Your task to perform on an android device: change the clock style Image 0: 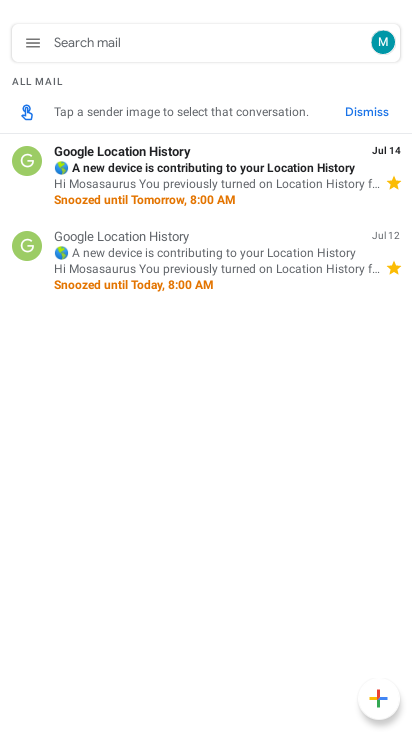
Step 0: press home button
Your task to perform on an android device: change the clock style Image 1: 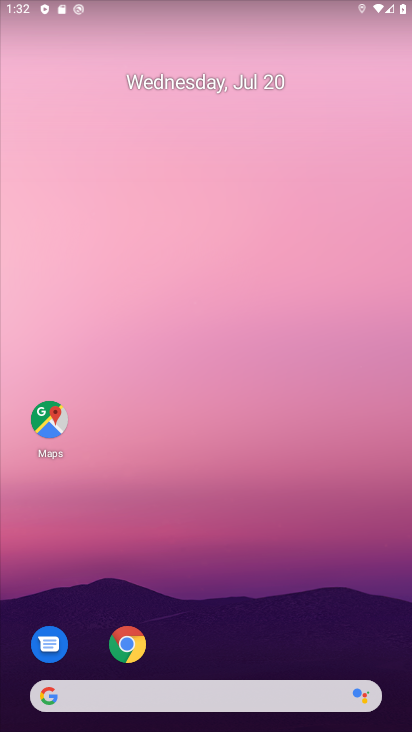
Step 1: drag from (270, 579) to (285, 71)
Your task to perform on an android device: change the clock style Image 2: 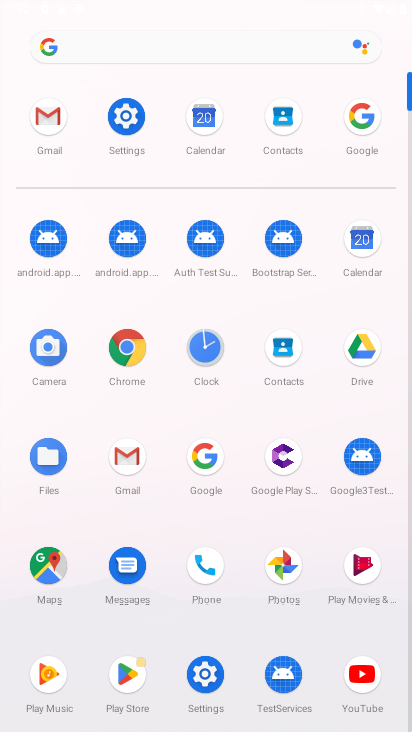
Step 2: click (206, 349)
Your task to perform on an android device: change the clock style Image 3: 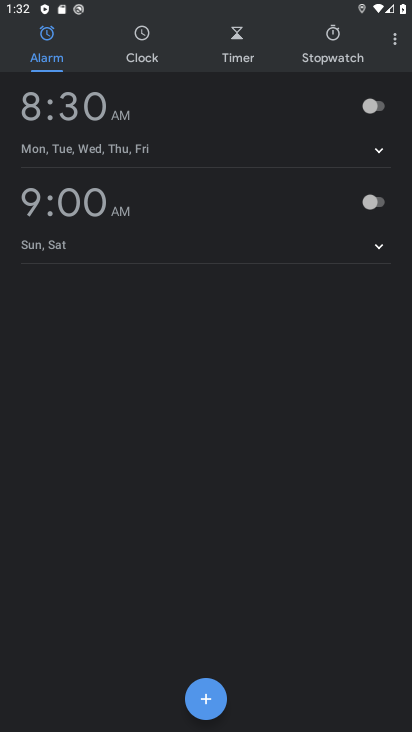
Step 3: click (396, 42)
Your task to perform on an android device: change the clock style Image 4: 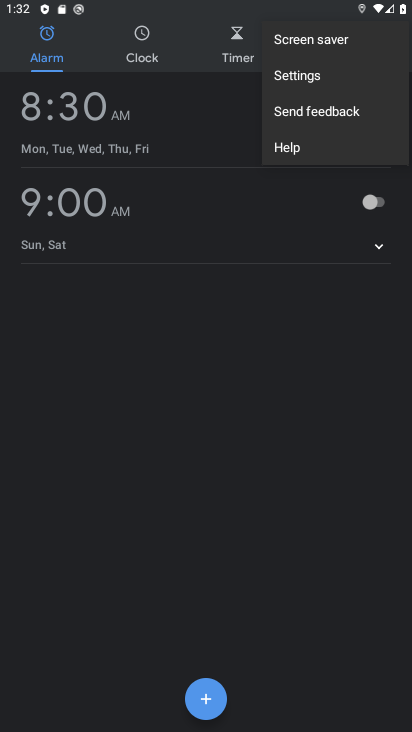
Step 4: click (287, 78)
Your task to perform on an android device: change the clock style Image 5: 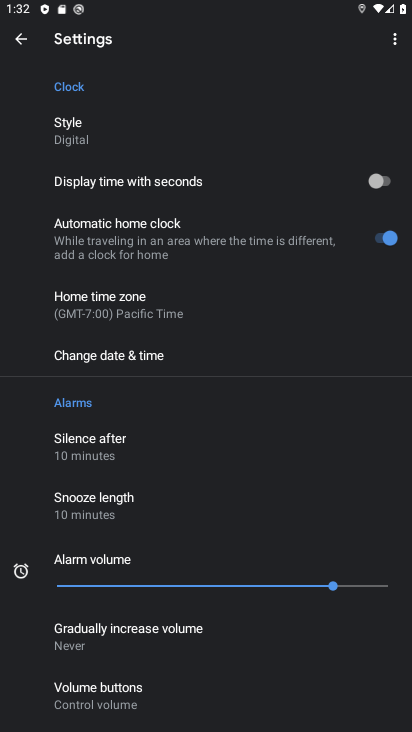
Step 5: click (86, 138)
Your task to perform on an android device: change the clock style Image 6: 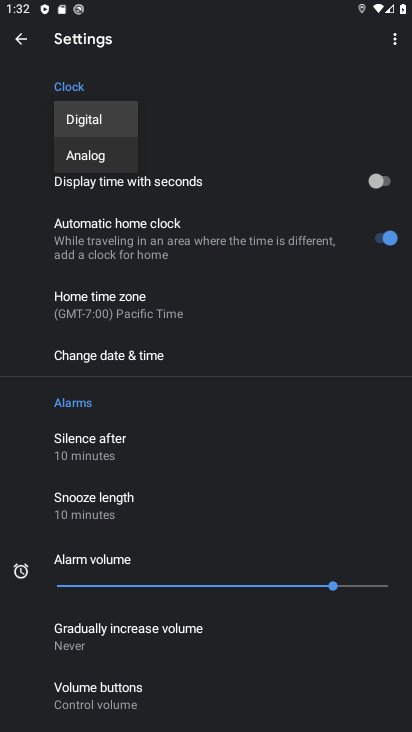
Step 6: click (116, 157)
Your task to perform on an android device: change the clock style Image 7: 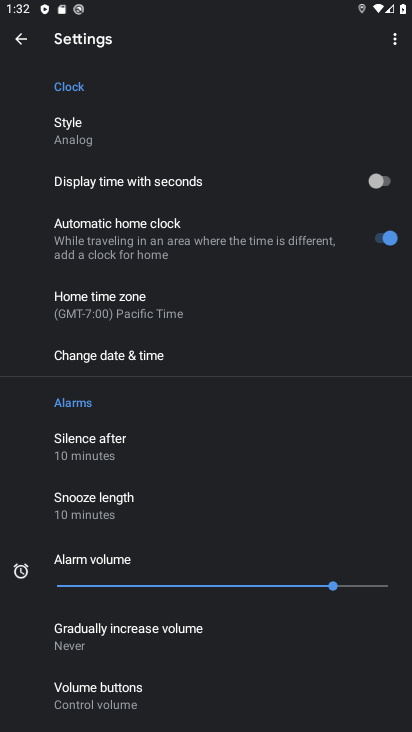
Step 7: task complete